Your task to perform on an android device: turn off picture-in-picture Image 0: 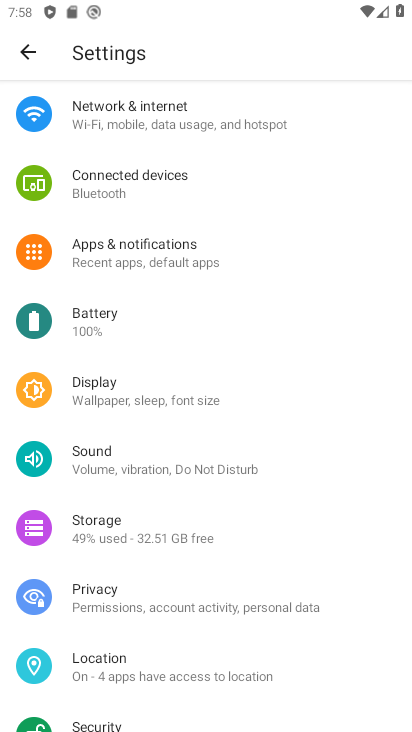
Step 0: press home button
Your task to perform on an android device: turn off picture-in-picture Image 1: 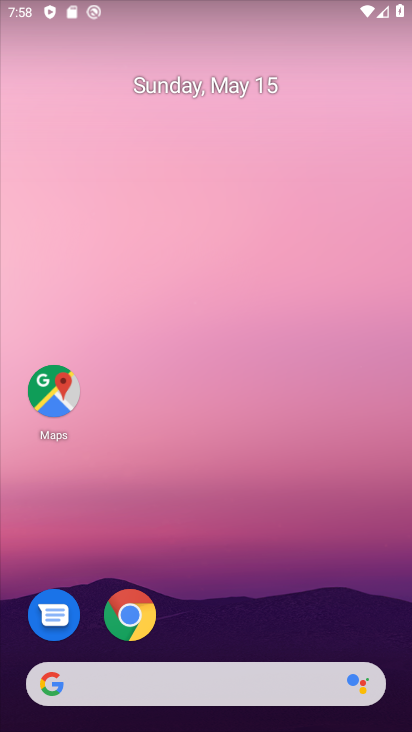
Step 1: drag from (273, 725) to (247, 323)
Your task to perform on an android device: turn off picture-in-picture Image 2: 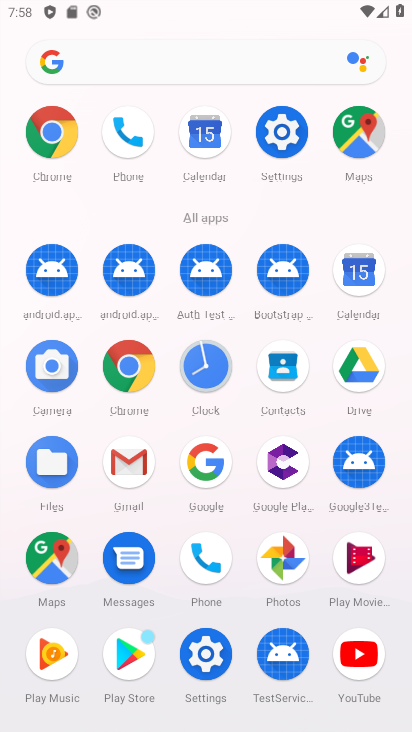
Step 2: click (288, 147)
Your task to perform on an android device: turn off picture-in-picture Image 3: 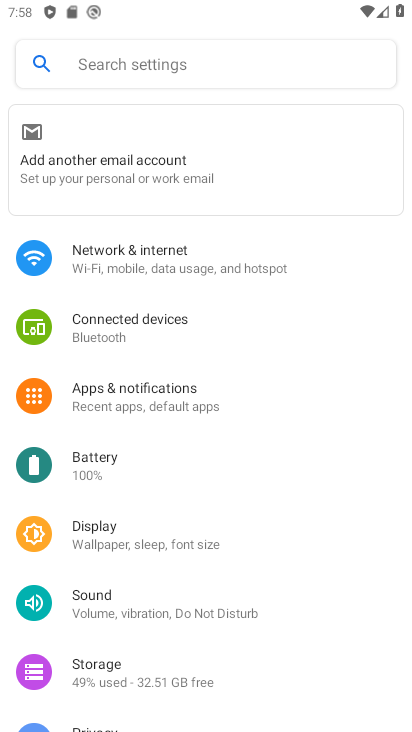
Step 3: click (187, 66)
Your task to perform on an android device: turn off picture-in-picture Image 4: 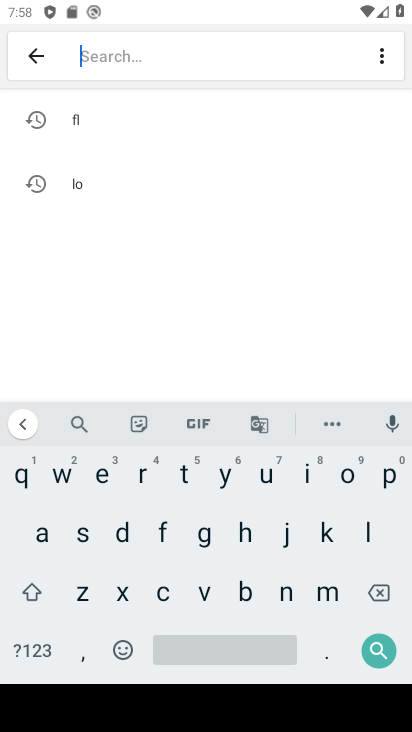
Step 4: click (384, 476)
Your task to perform on an android device: turn off picture-in-picture Image 5: 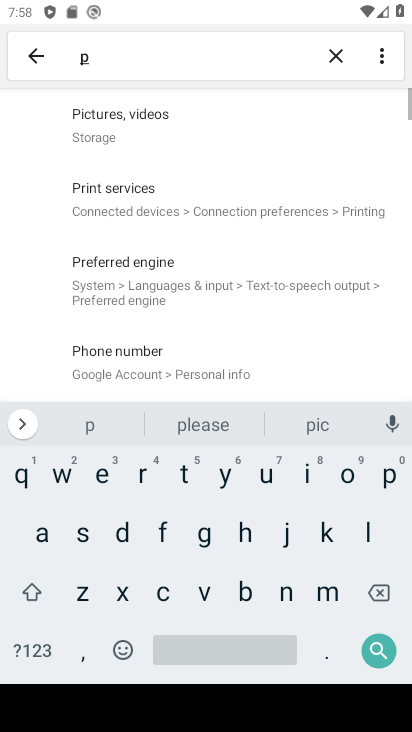
Step 5: click (308, 478)
Your task to perform on an android device: turn off picture-in-picture Image 6: 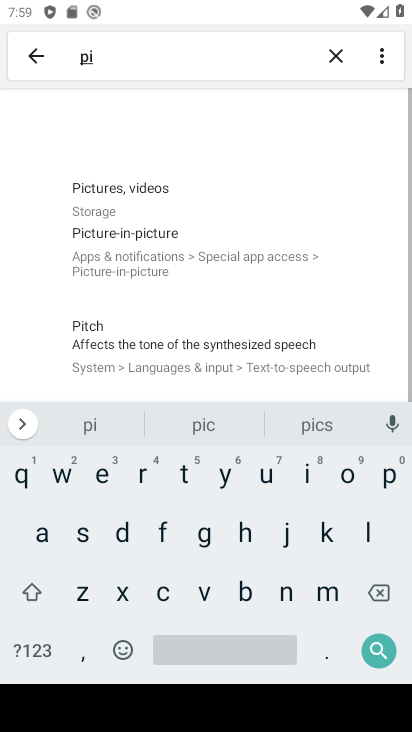
Step 6: click (159, 591)
Your task to perform on an android device: turn off picture-in-picture Image 7: 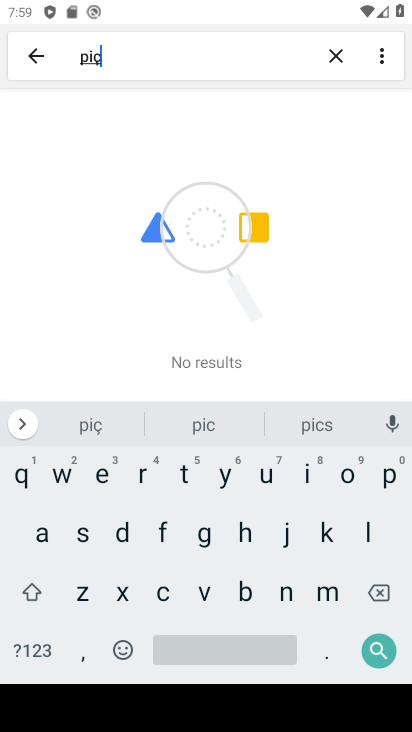
Step 7: click (195, 134)
Your task to perform on an android device: turn off picture-in-picture Image 8: 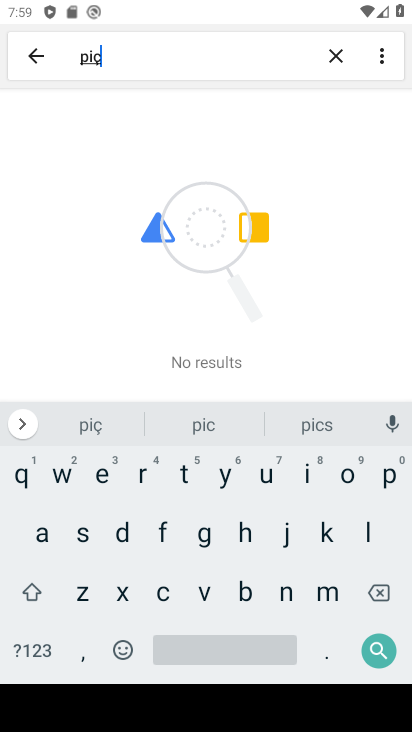
Step 8: click (373, 593)
Your task to perform on an android device: turn off picture-in-picture Image 9: 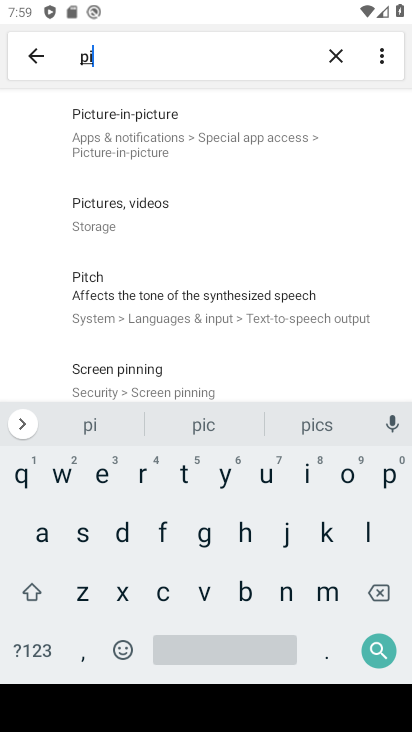
Step 9: click (200, 128)
Your task to perform on an android device: turn off picture-in-picture Image 10: 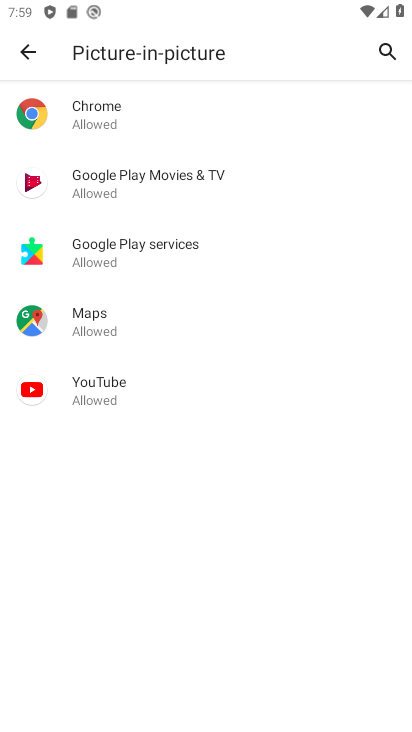
Step 10: task complete